Your task to perform on an android device: turn off location Image 0: 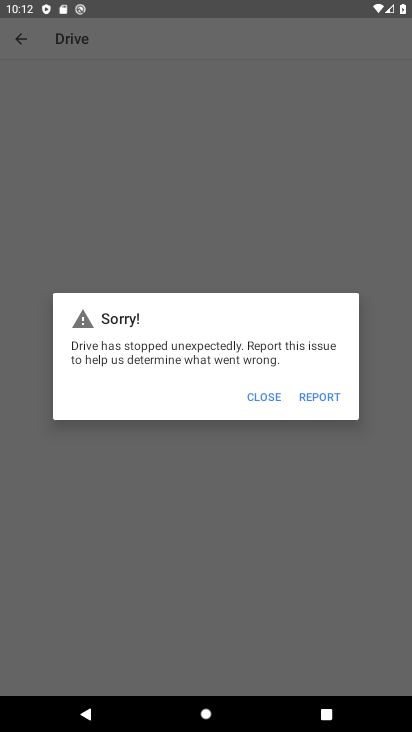
Step 0: press home button
Your task to perform on an android device: turn off location Image 1: 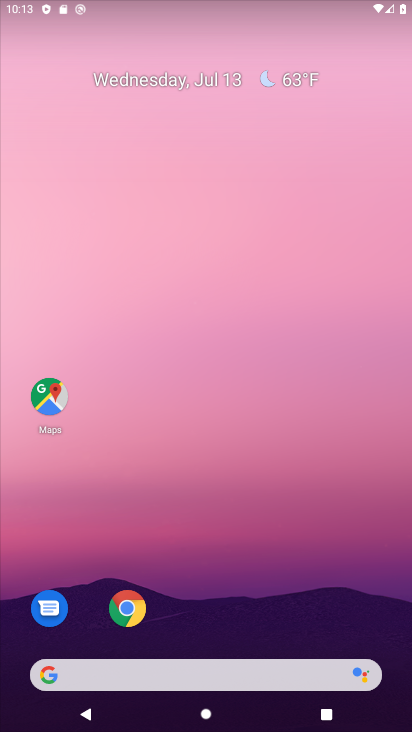
Step 1: drag from (198, 578) to (289, 49)
Your task to perform on an android device: turn off location Image 2: 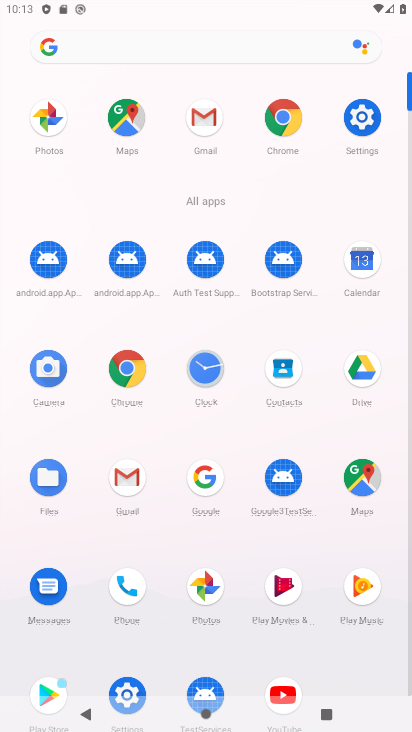
Step 2: drag from (242, 525) to (265, 210)
Your task to perform on an android device: turn off location Image 3: 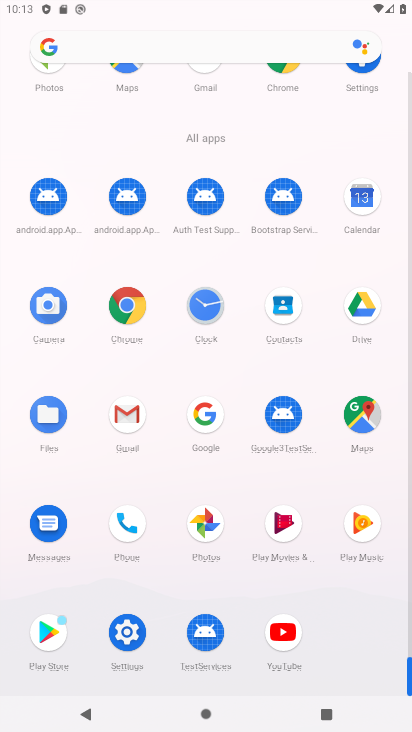
Step 3: click (126, 628)
Your task to perform on an android device: turn off location Image 4: 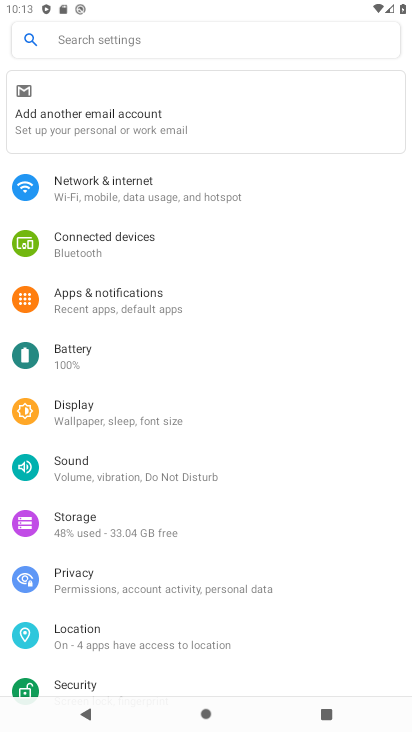
Step 4: click (110, 635)
Your task to perform on an android device: turn off location Image 5: 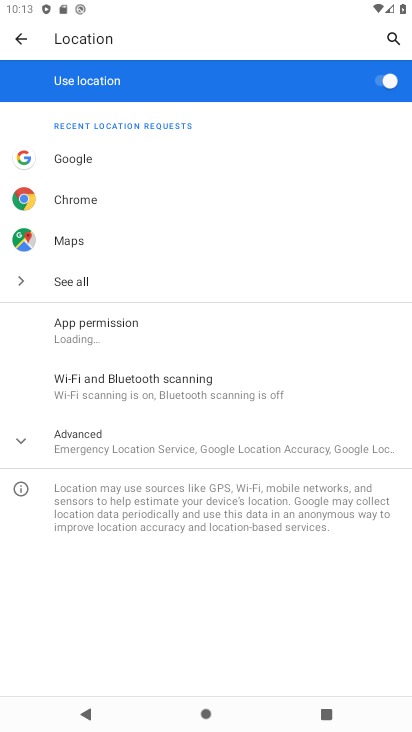
Step 5: click (327, 76)
Your task to perform on an android device: turn off location Image 6: 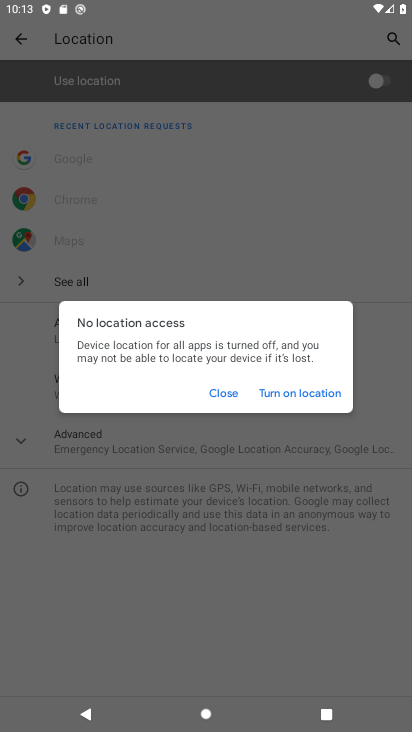
Step 6: task complete